Your task to perform on an android device: Open the calendar and show me this week's events Image 0: 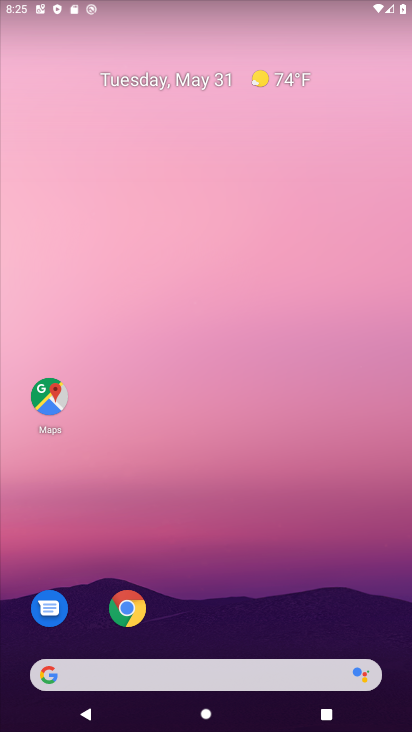
Step 0: drag from (206, 641) to (125, 62)
Your task to perform on an android device: Open the calendar and show me this week's events Image 1: 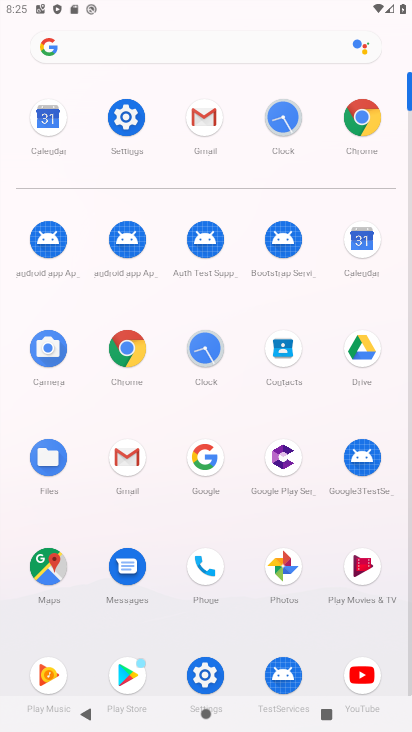
Step 1: click (354, 236)
Your task to perform on an android device: Open the calendar and show me this week's events Image 2: 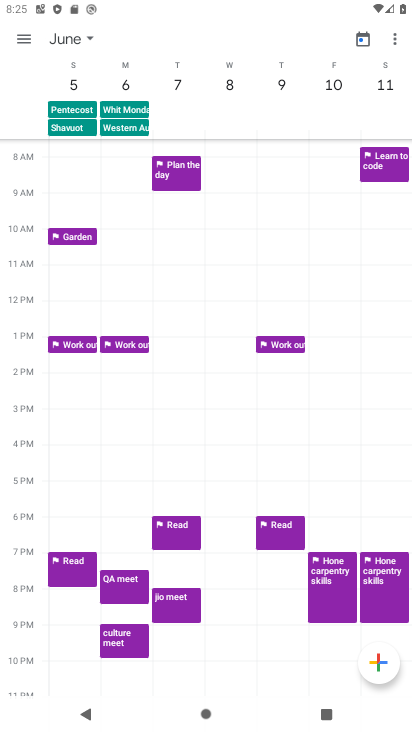
Step 2: click (10, 42)
Your task to perform on an android device: Open the calendar and show me this week's events Image 3: 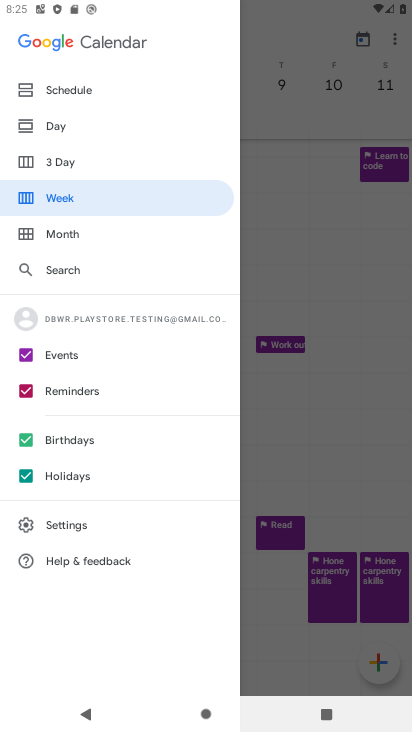
Step 3: click (84, 206)
Your task to perform on an android device: Open the calendar and show me this week's events Image 4: 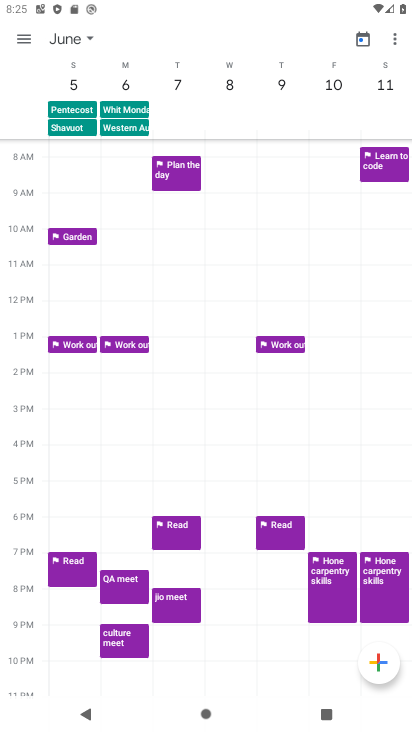
Step 4: task complete